Your task to perform on an android device: find which apps use the phone's location Image 0: 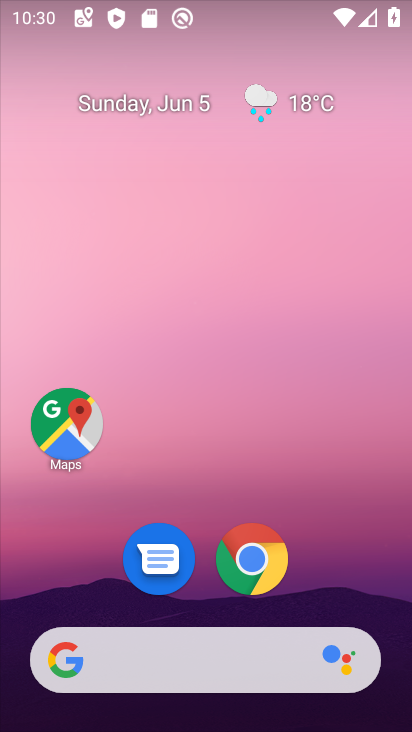
Step 0: drag from (233, 628) to (160, 100)
Your task to perform on an android device: find which apps use the phone's location Image 1: 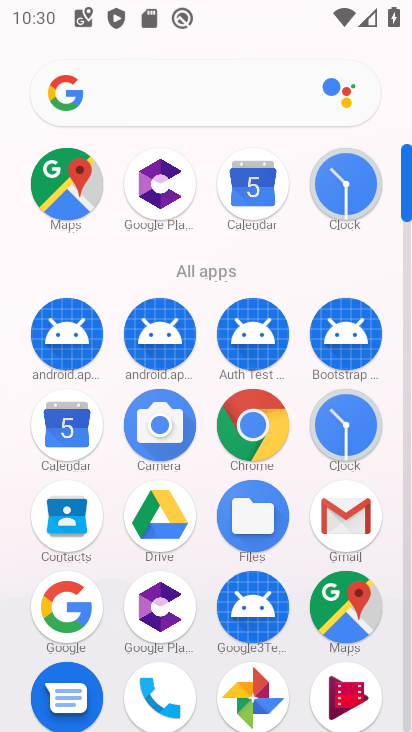
Step 1: drag from (208, 569) to (405, 478)
Your task to perform on an android device: find which apps use the phone's location Image 2: 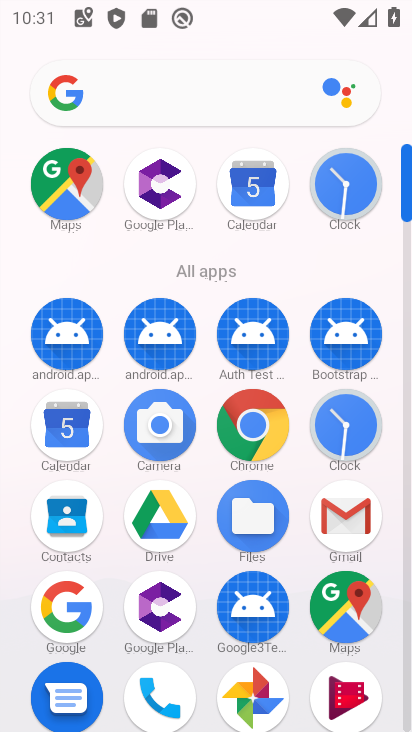
Step 2: drag from (199, 564) to (322, 91)
Your task to perform on an android device: find which apps use the phone's location Image 3: 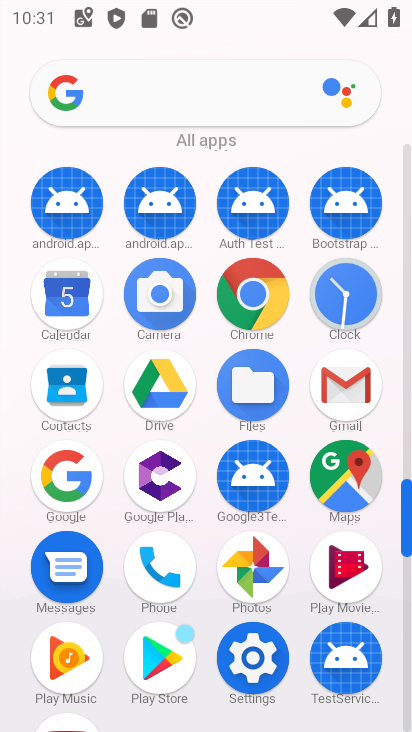
Step 3: click (259, 633)
Your task to perform on an android device: find which apps use the phone's location Image 4: 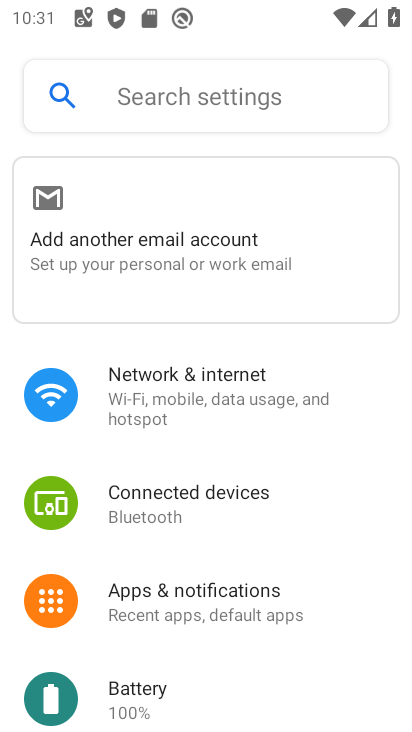
Step 4: drag from (259, 633) to (213, 189)
Your task to perform on an android device: find which apps use the phone's location Image 5: 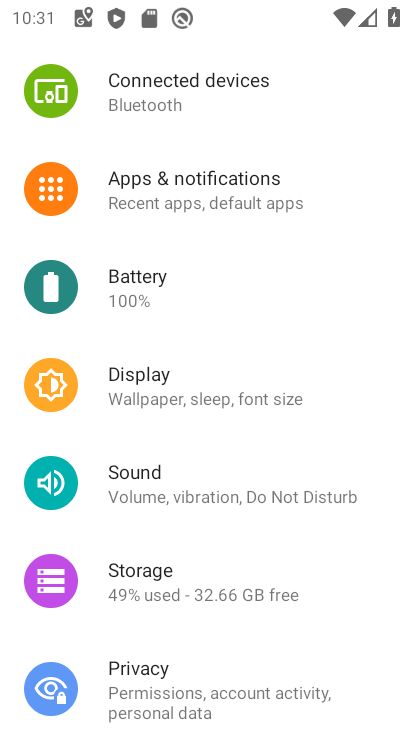
Step 5: drag from (171, 644) to (159, 214)
Your task to perform on an android device: find which apps use the phone's location Image 6: 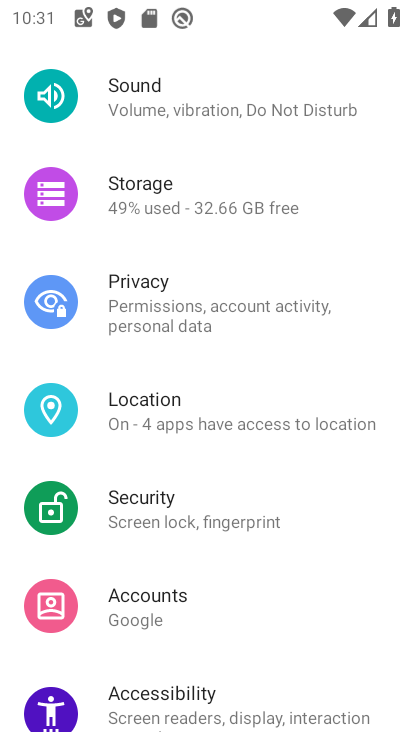
Step 6: click (96, 421)
Your task to perform on an android device: find which apps use the phone's location Image 7: 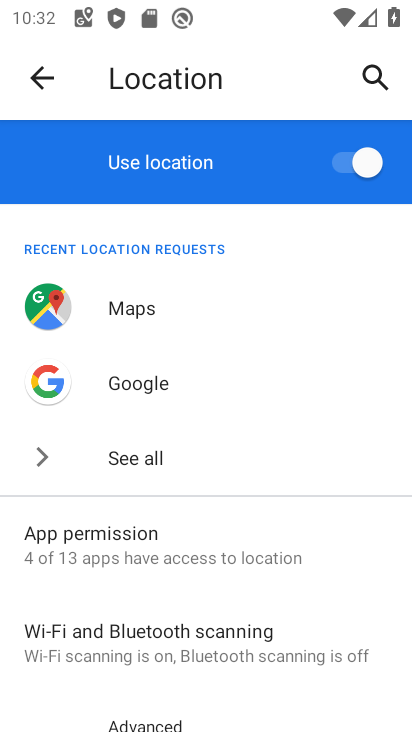
Step 7: click (142, 538)
Your task to perform on an android device: find which apps use the phone's location Image 8: 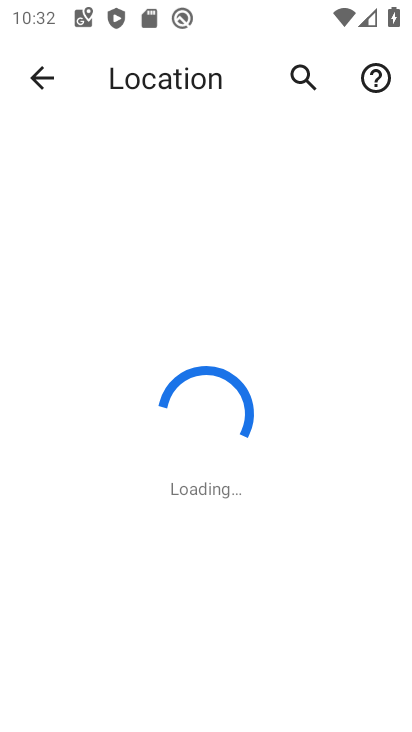
Step 8: task complete